Your task to perform on an android device: Search for the best gaming mouse on Best Buy. Image 0: 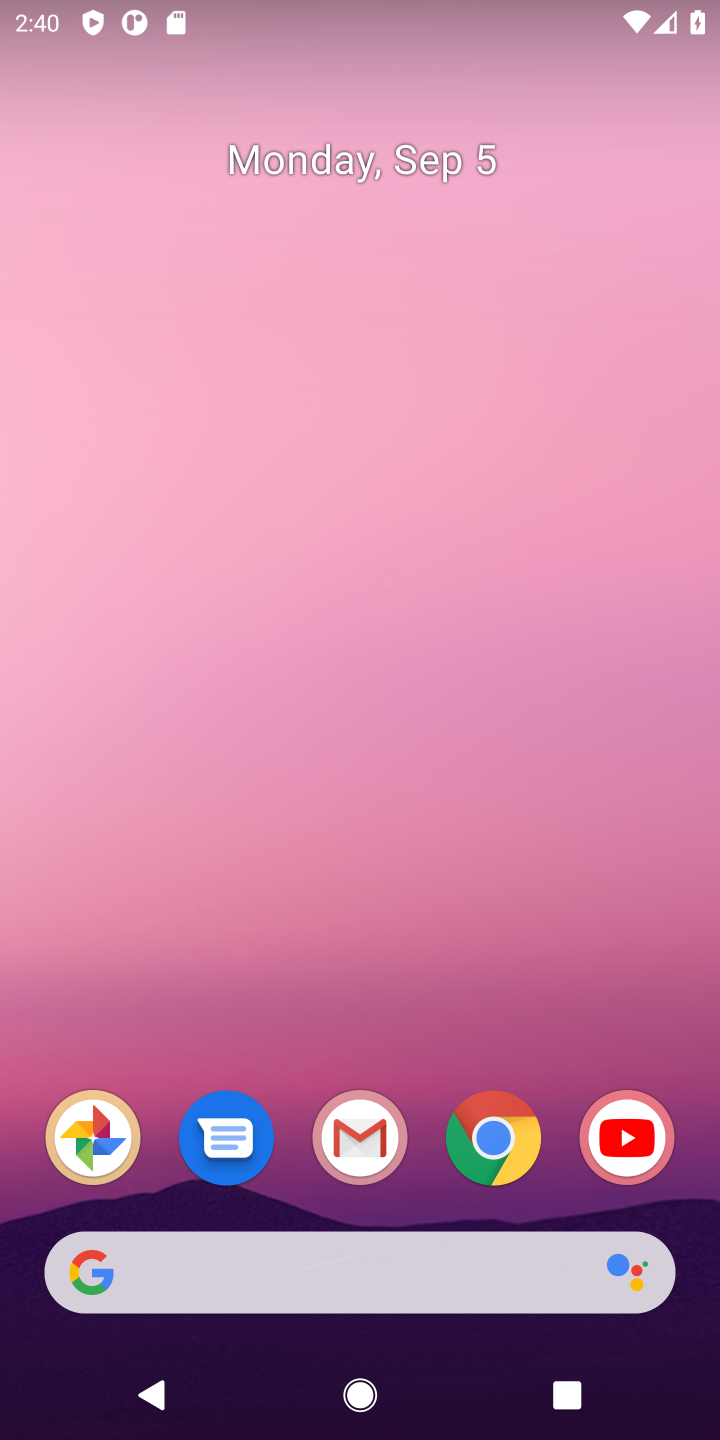
Step 0: click (460, 1138)
Your task to perform on an android device: Search for the best gaming mouse on Best Buy. Image 1: 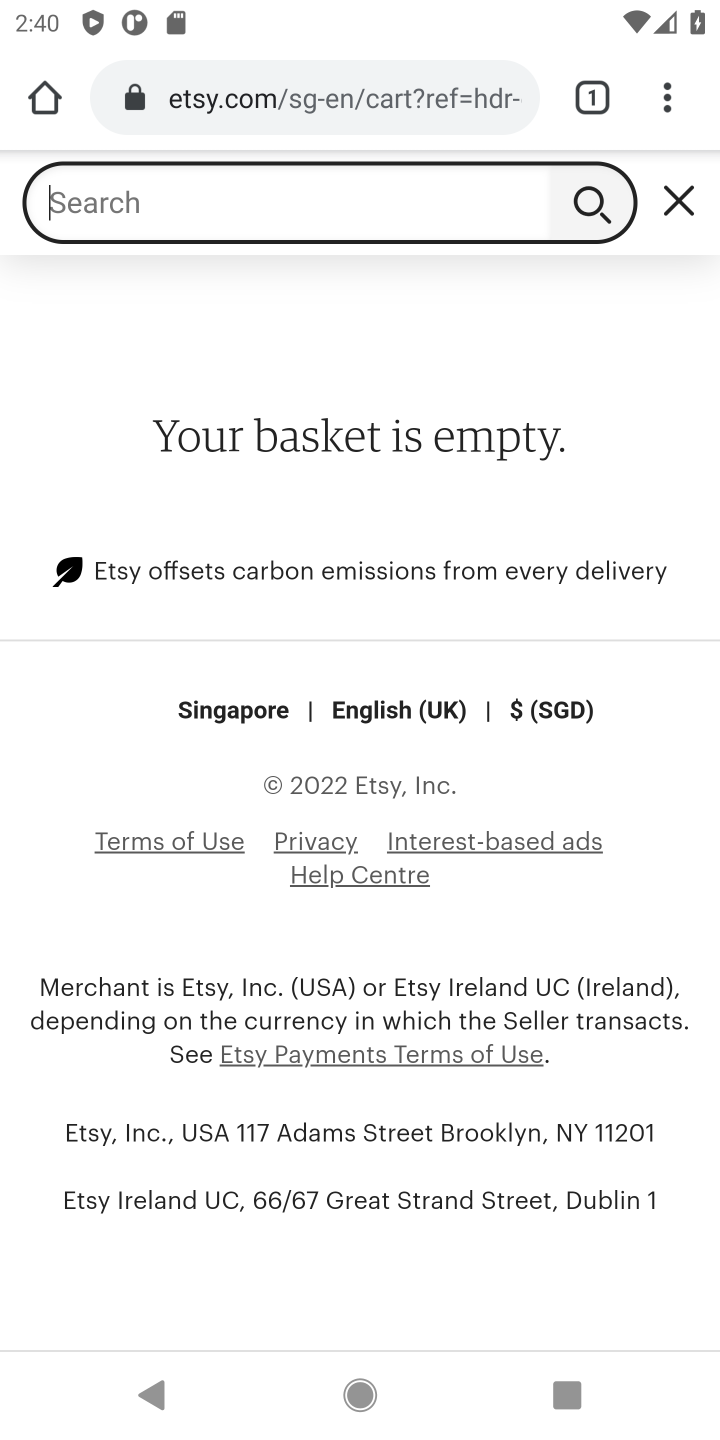
Step 1: click (223, 85)
Your task to perform on an android device: Search for the best gaming mouse on Best Buy. Image 2: 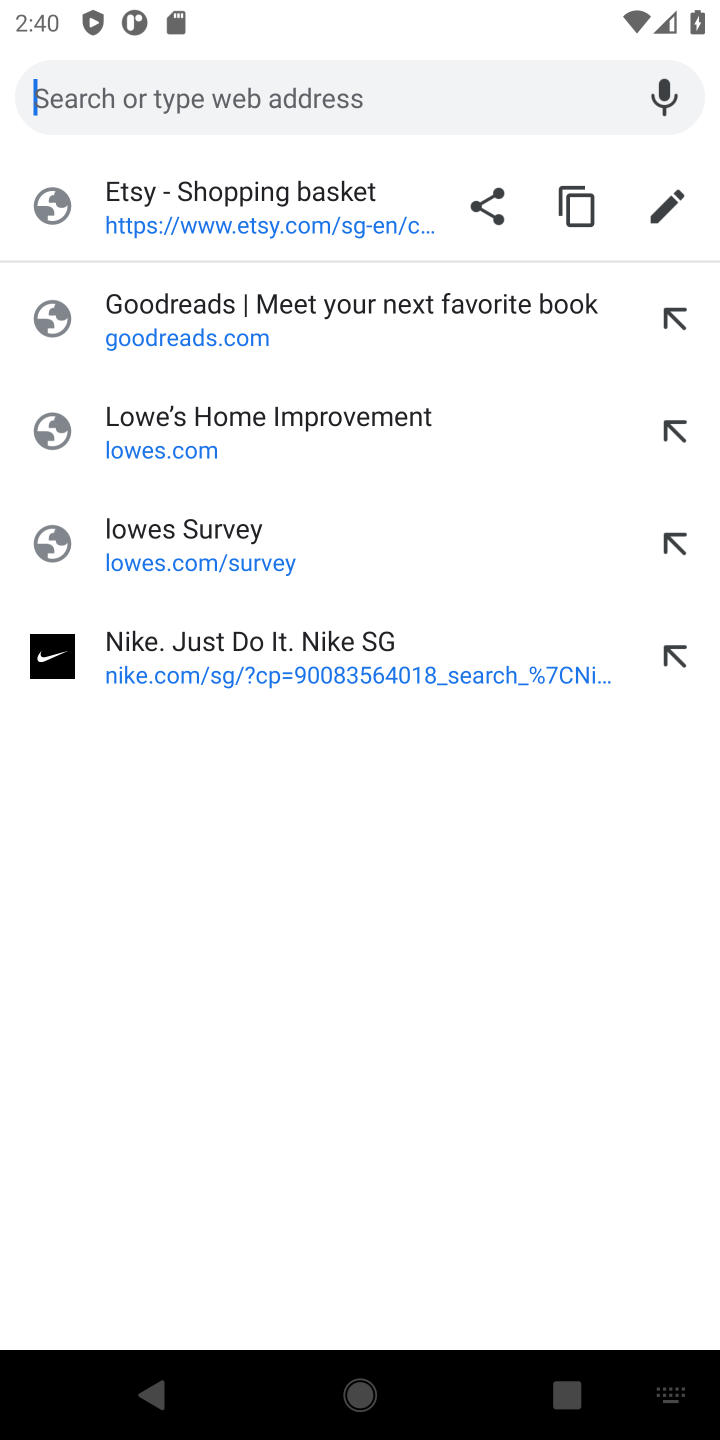
Step 2: click (378, 75)
Your task to perform on an android device: Search for the best gaming mouse on Best Buy. Image 3: 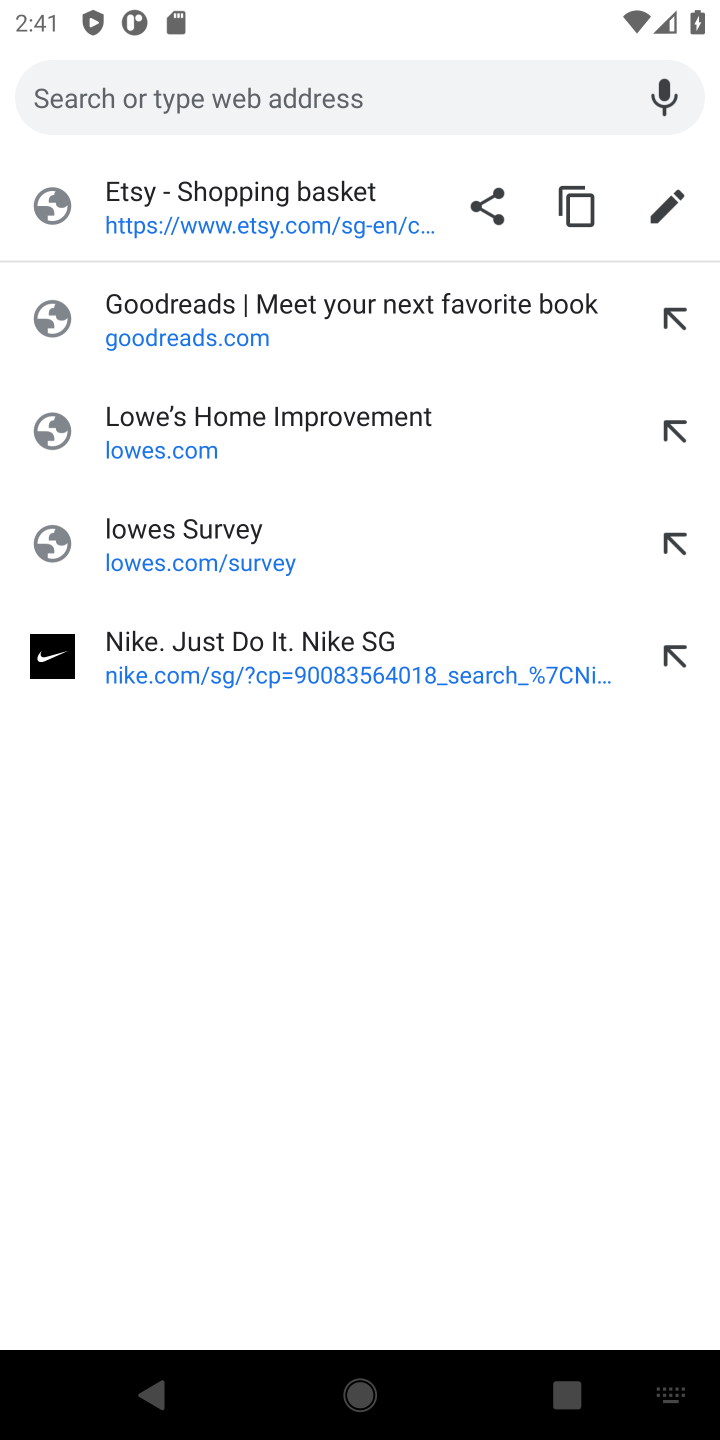
Step 3: type "best buy"
Your task to perform on an android device: Search for the best gaming mouse on Best Buy. Image 4: 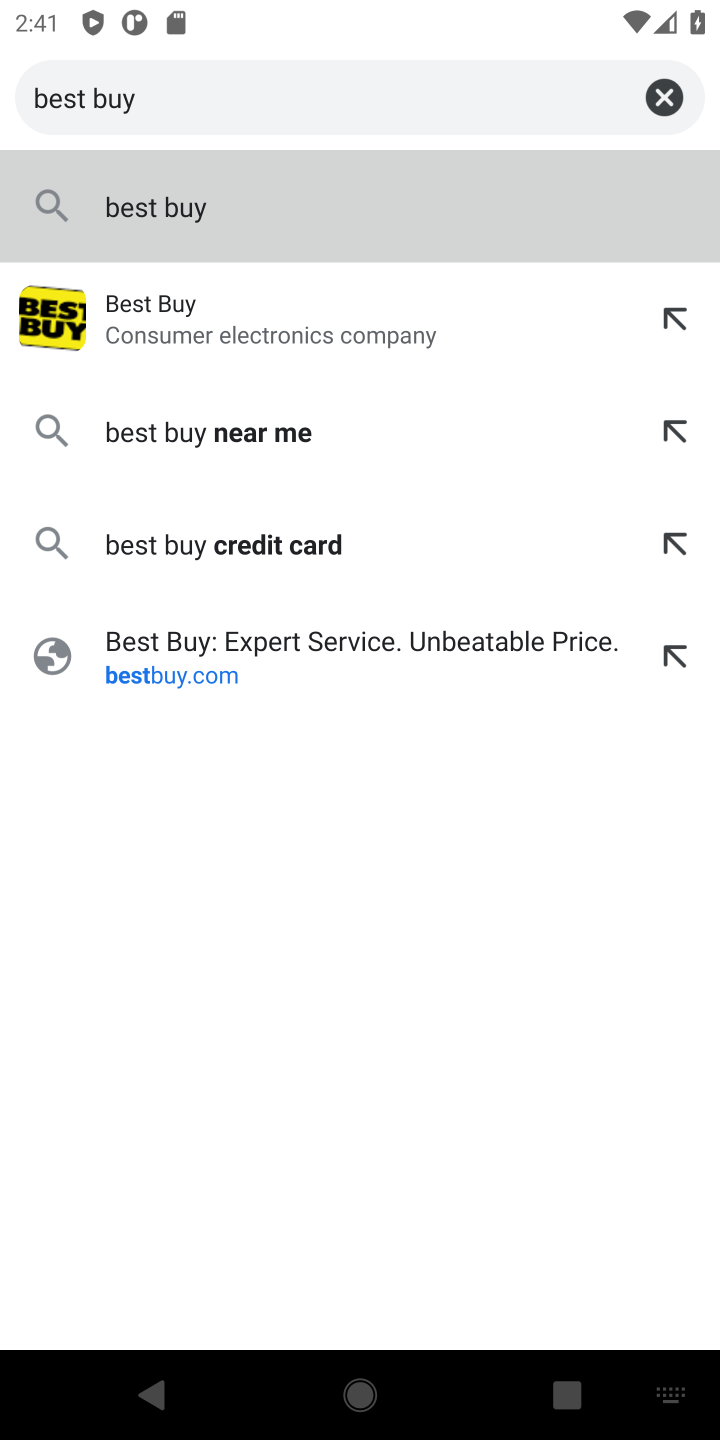
Step 4: click (143, 306)
Your task to perform on an android device: Search for the best gaming mouse on Best Buy. Image 5: 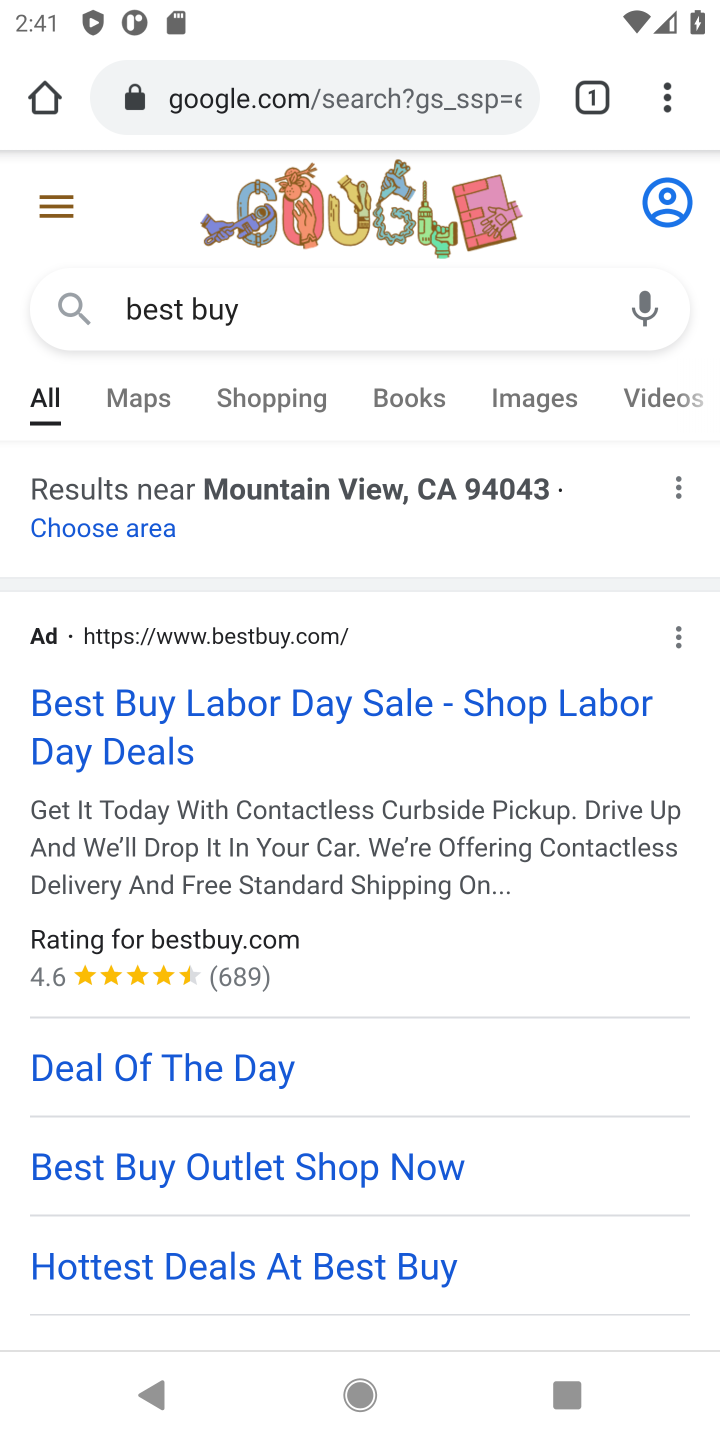
Step 5: click (73, 703)
Your task to perform on an android device: Search for the best gaming mouse on Best Buy. Image 6: 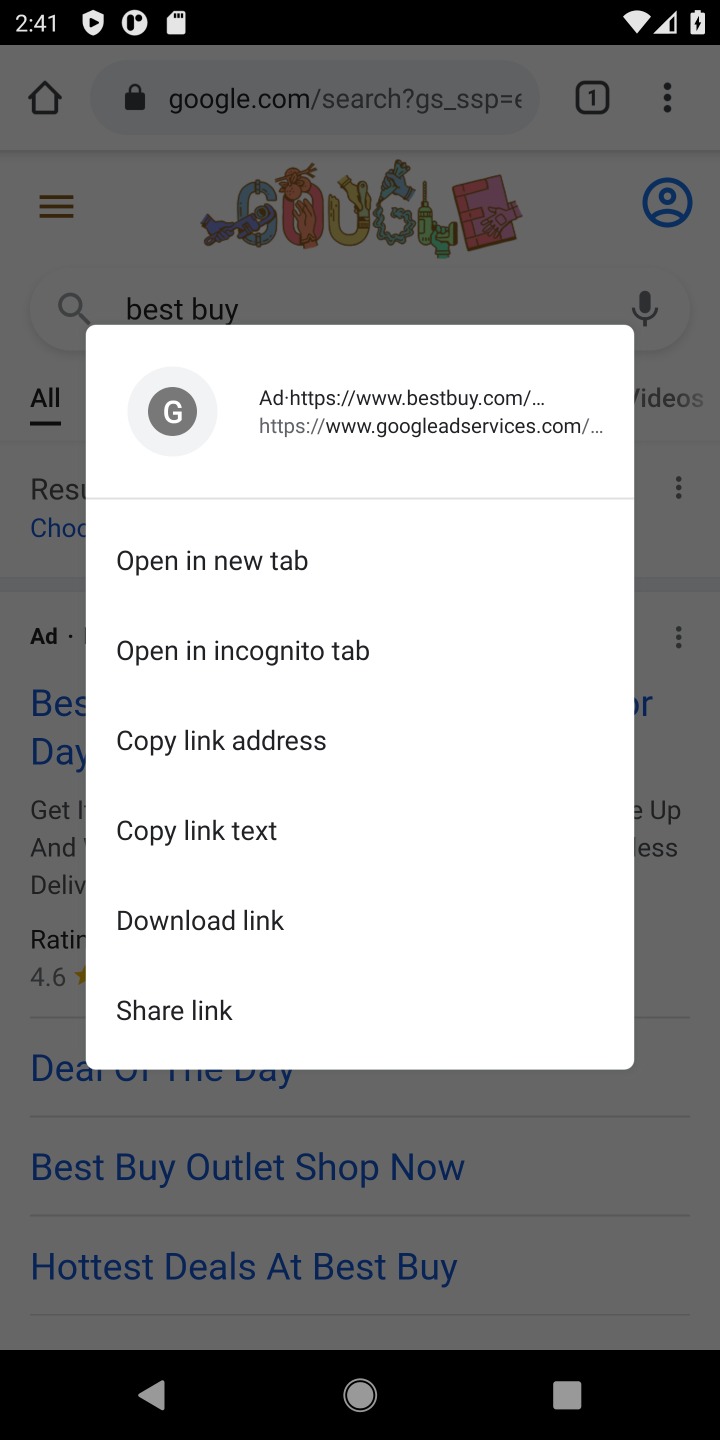
Step 6: click (690, 1125)
Your task to perform on an android device: Search for the best gaming mouse on Best Buy. Image 7: 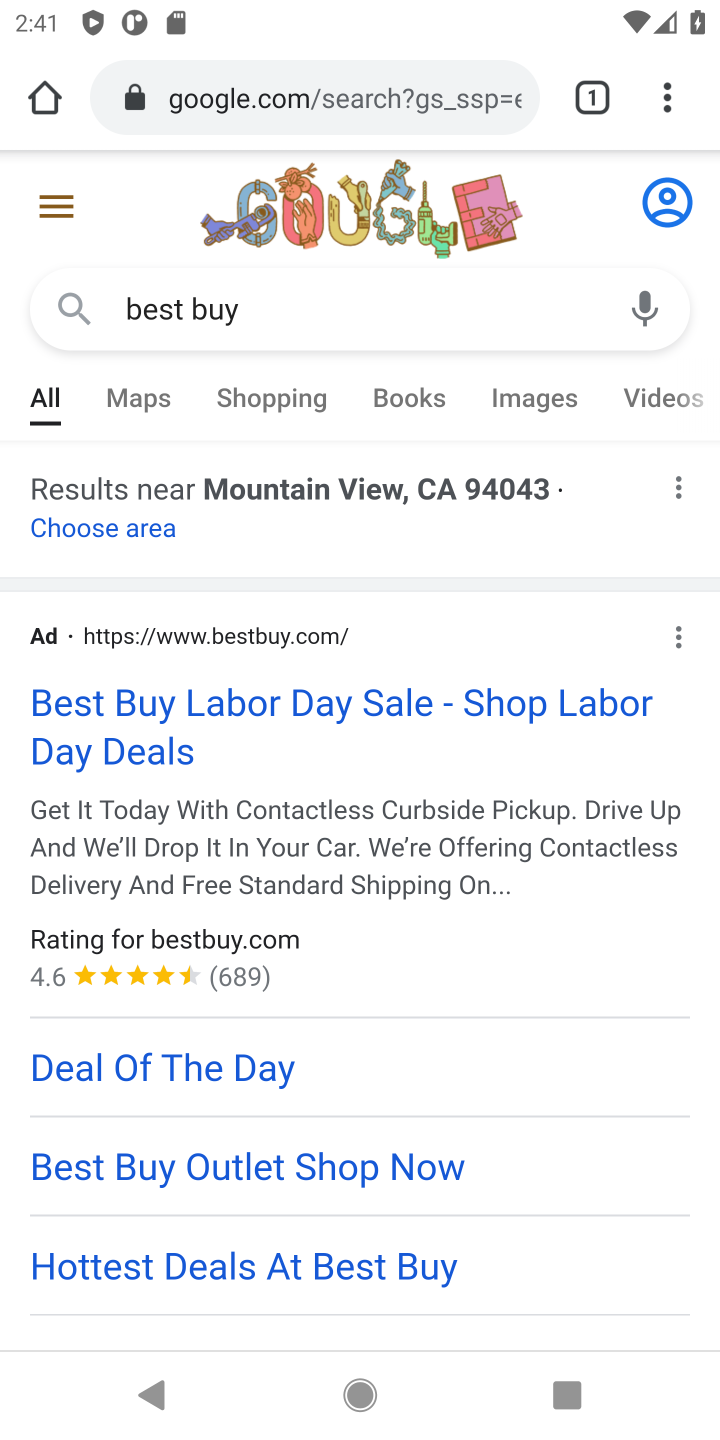
Step 7: drag from (620, 1063) to (566, 450)
Your task to perform on an android device: Search for the best gaming mouse on Best Buy. Image 8: 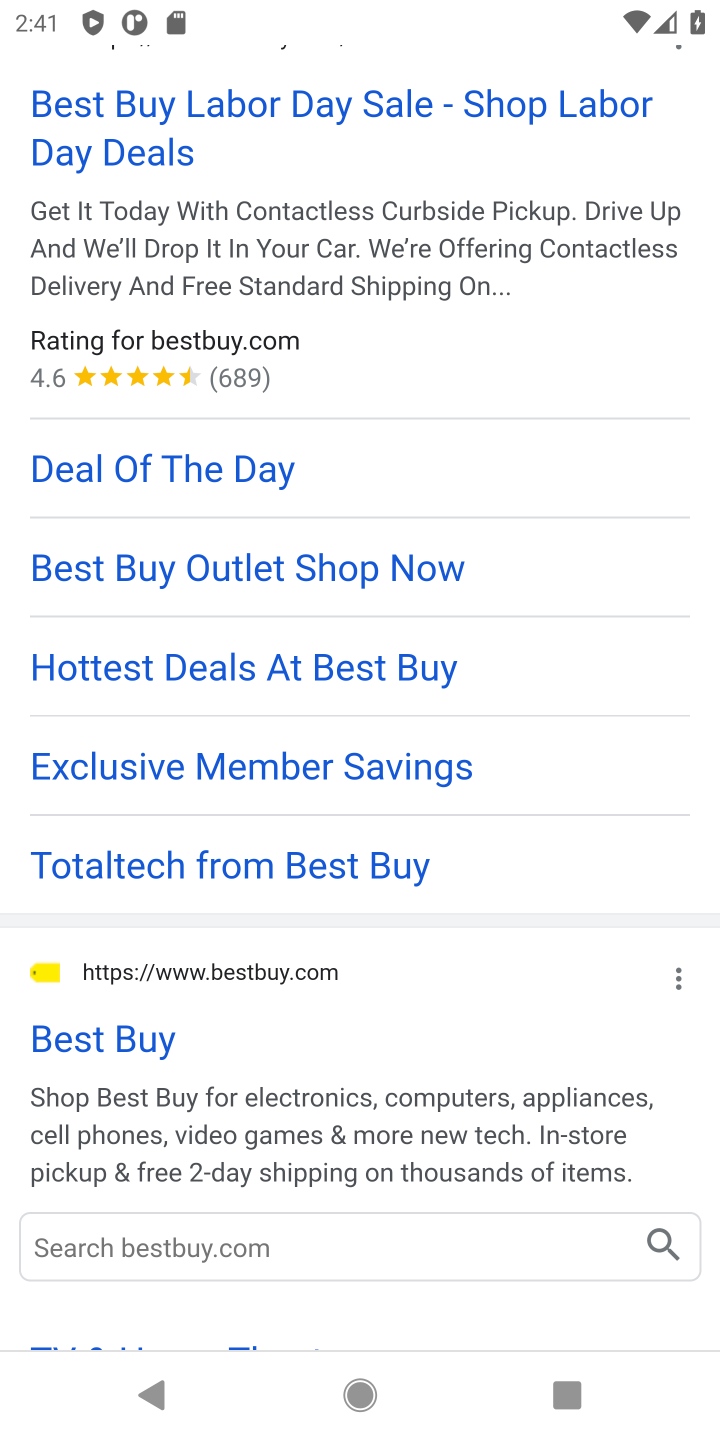
Step 8: click (75, 1045)
Your task to perform on an android device: Search for the best gaming mouse on Best Buy. Image 9: 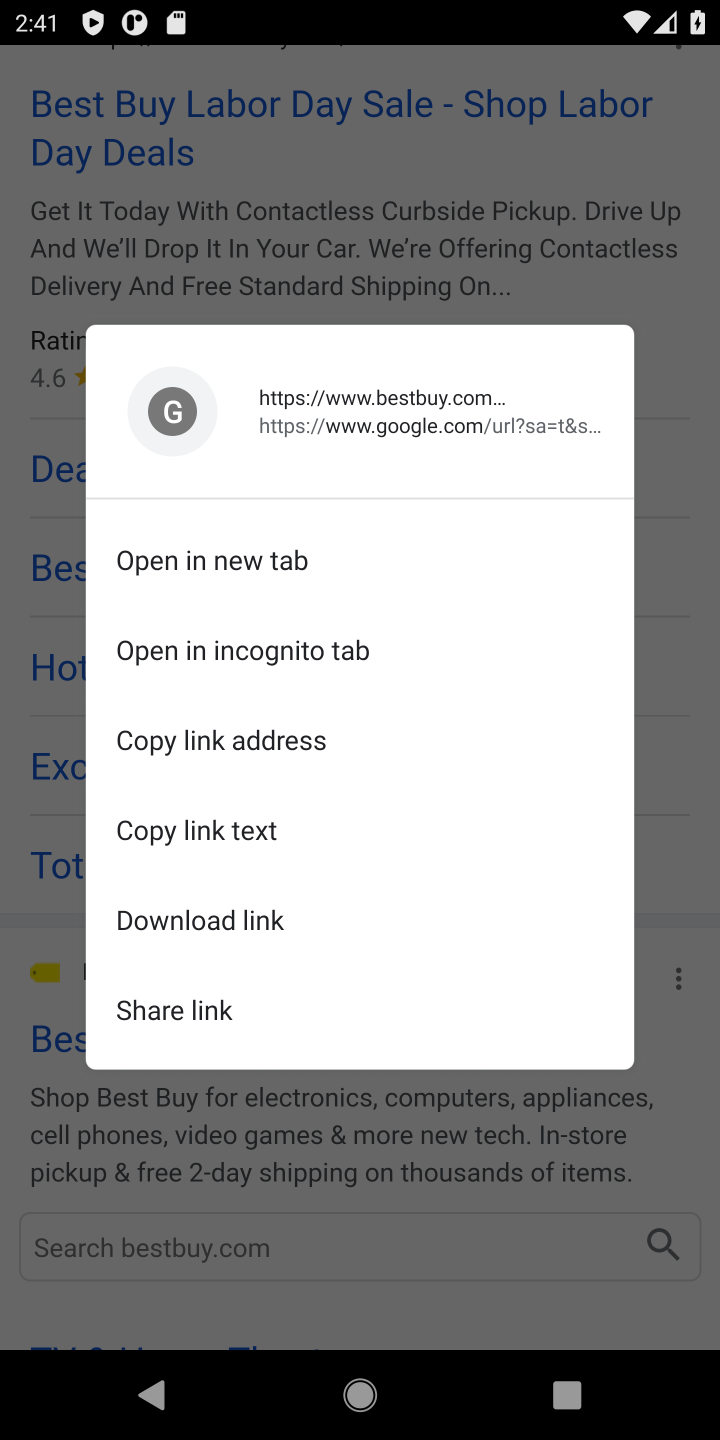
Step 9: click (665, 756)
Your task to perform on an android device: Search for the best gaming mouse on Best Buy. Image 10: 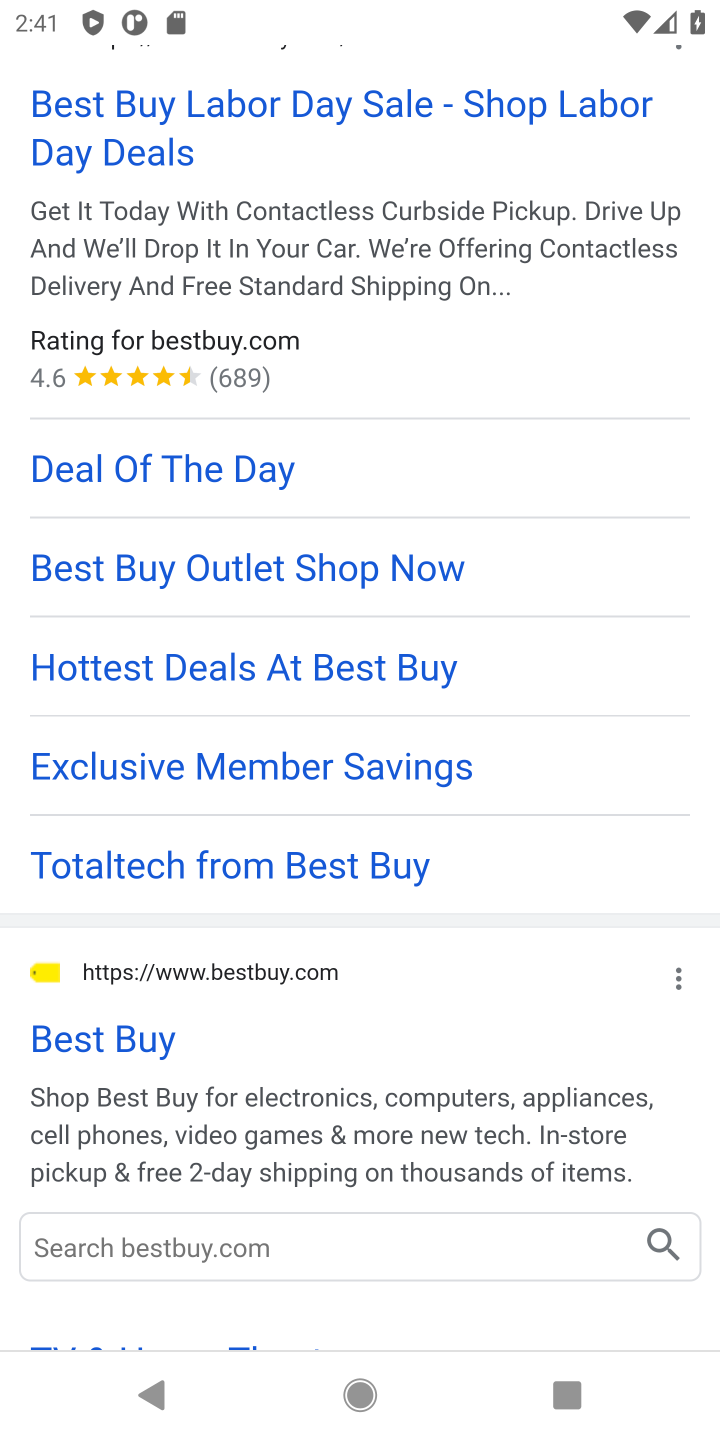
Step 10: click (50, 1037)
Your task to perform on an android device: Search for the best gaming mouse on Best Buy. Image 11: 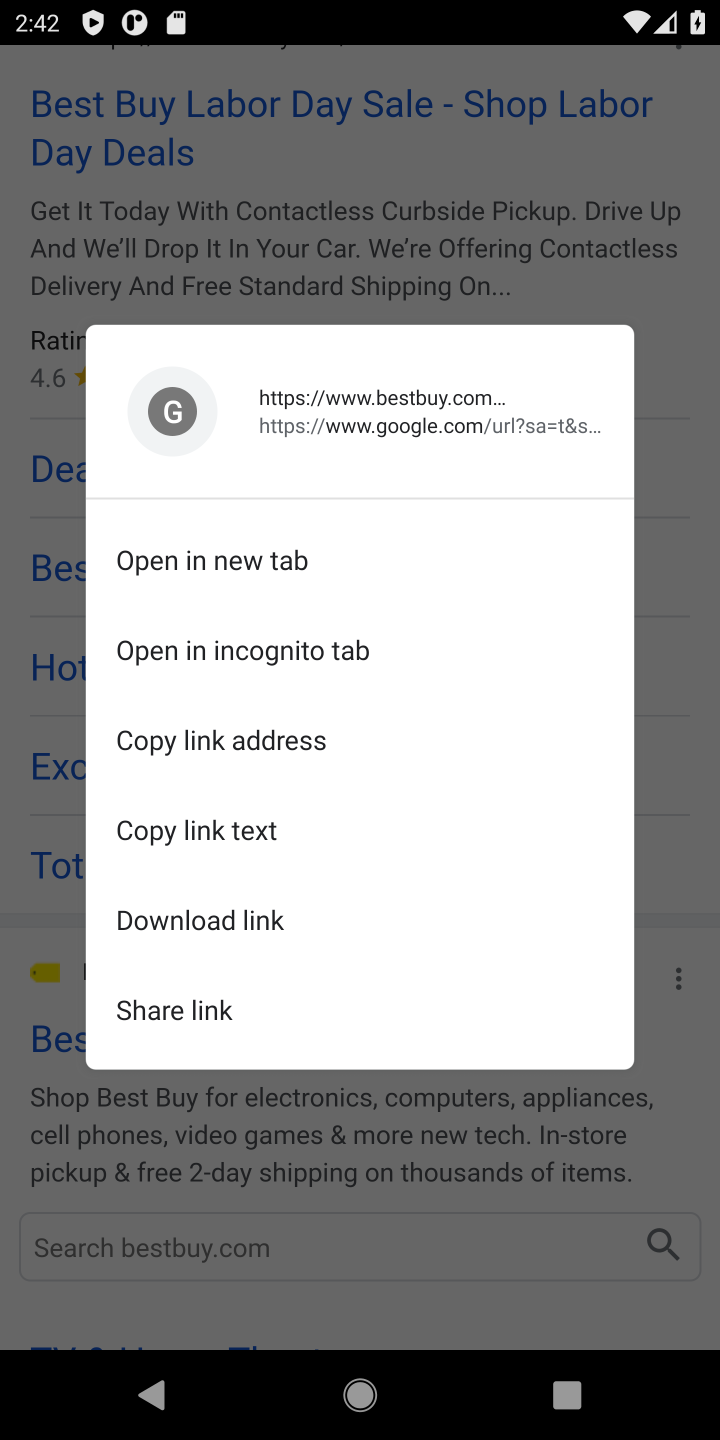
Step 11: drag from (706, 756) to (706, 336)
Your task to perform on an android device: Search for the best gaming mouse on Best Buy. Image 12: 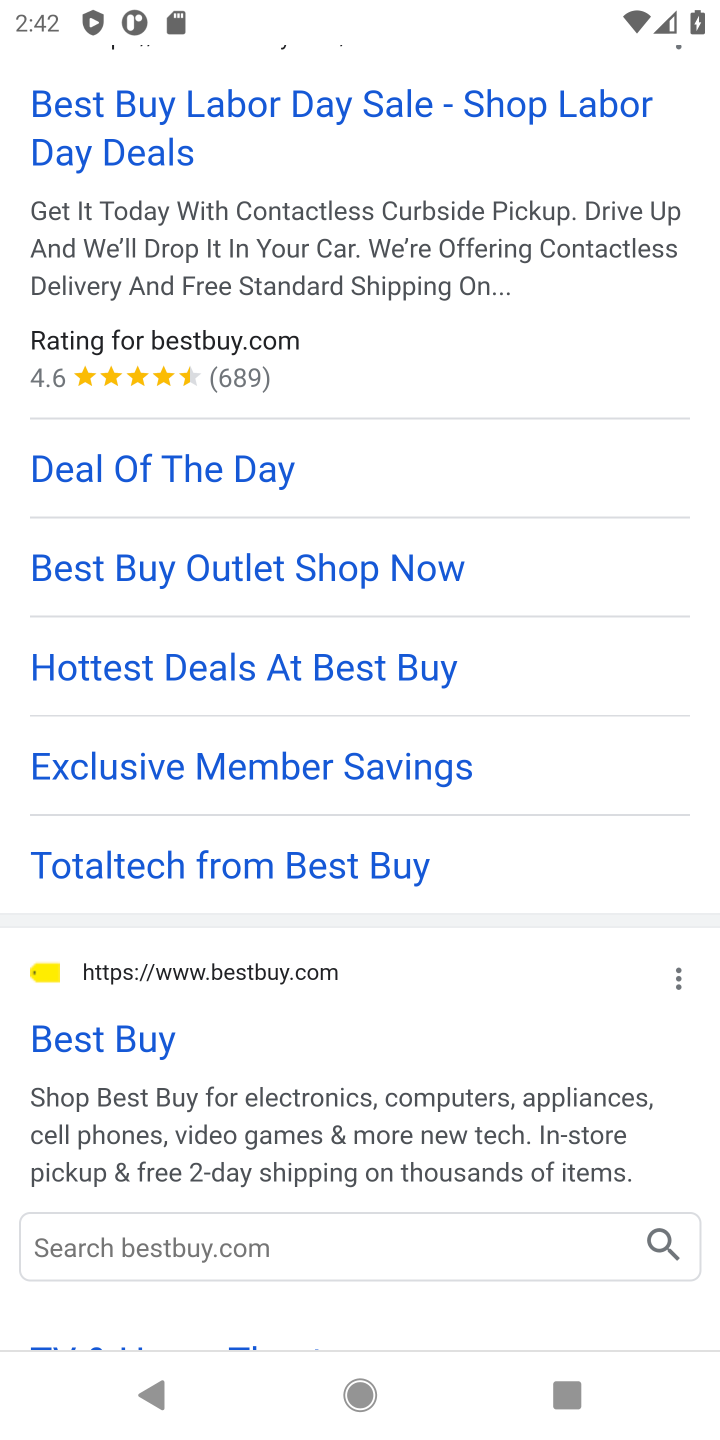
Step 12: click (131, 1037)
Your task to perform on an android device: Search for the best gaming mouse on Best Buy. Image 13: 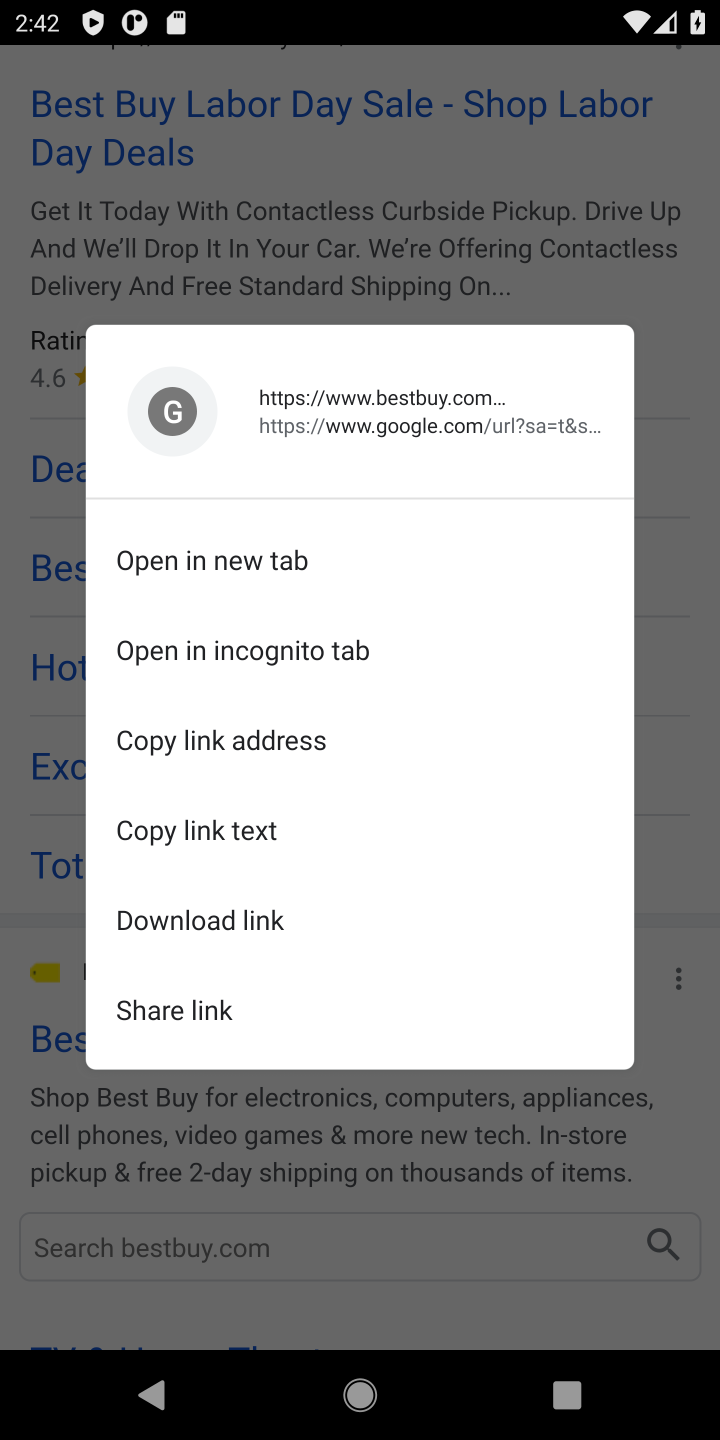
Step 13: drag from (673, 732) to (78, 1049)
Your task to perform on an android device: Search for the best gaming mouse on Best Buy. Image 14: 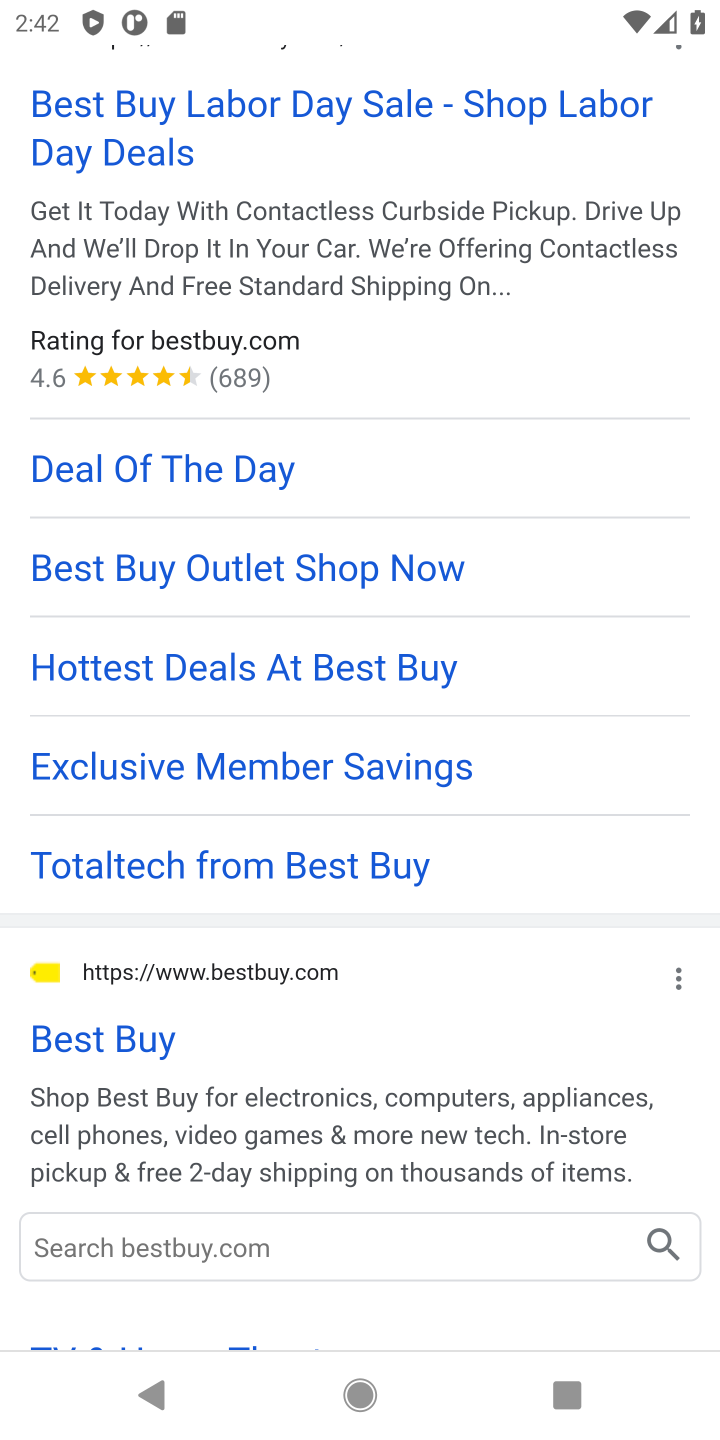
Step 14: click (72, 1045)
Your task to perform on an android device: Search for the best gaming mouse on Best Buy. Image 15: 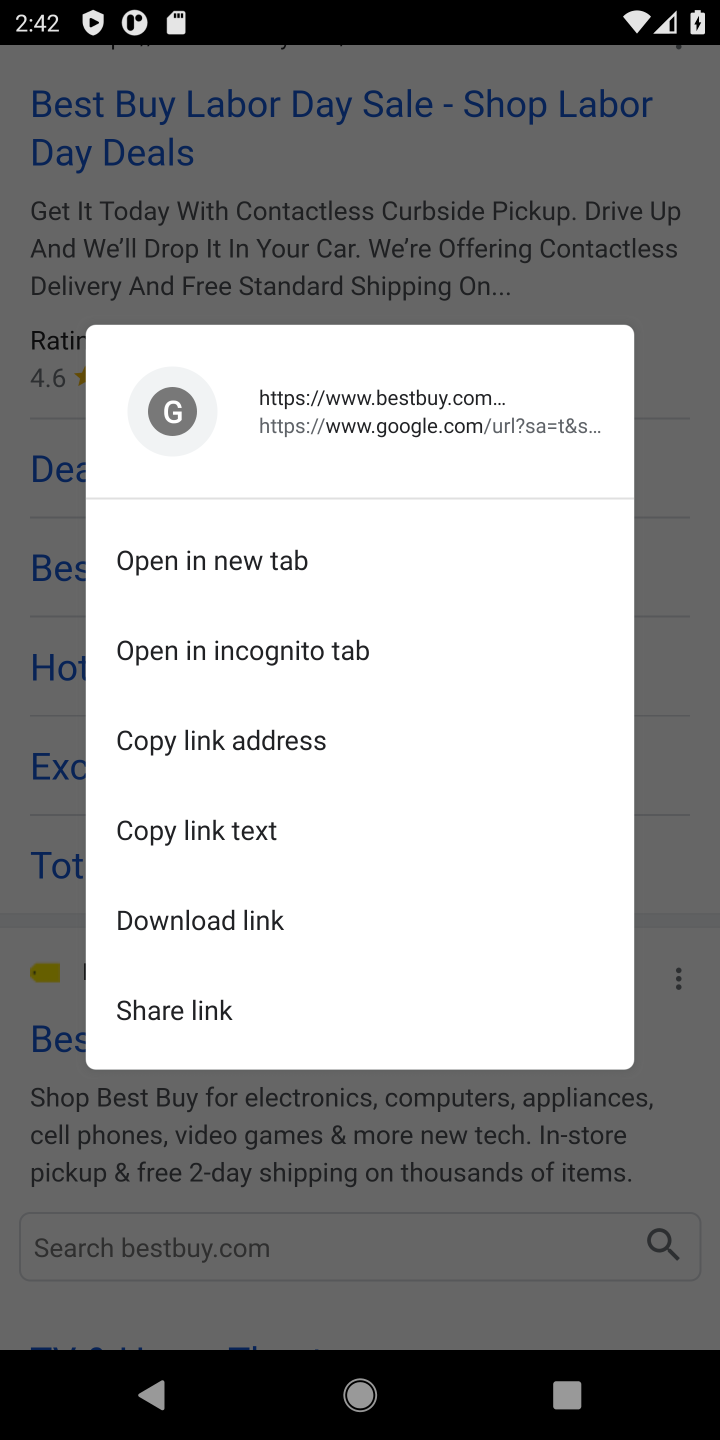
Step 15: click (699, 688)
Your task to perform on an android device: Search for the best gaming mouse on Best Buy. Image 16: 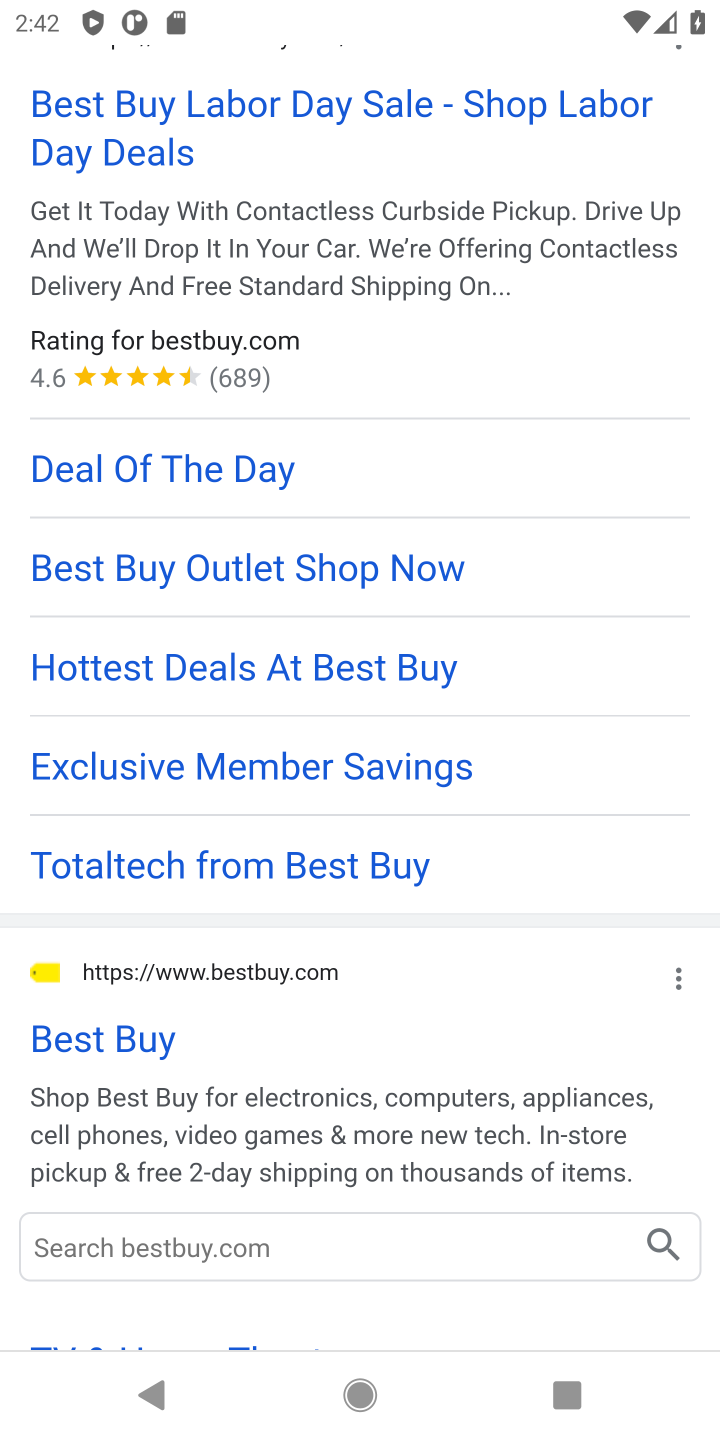
Step 16: drag from (517, 1008) to (79, 1047)
Your task to perform on an android device: Search for the best gaming mouse on Best Buy. Image 17: 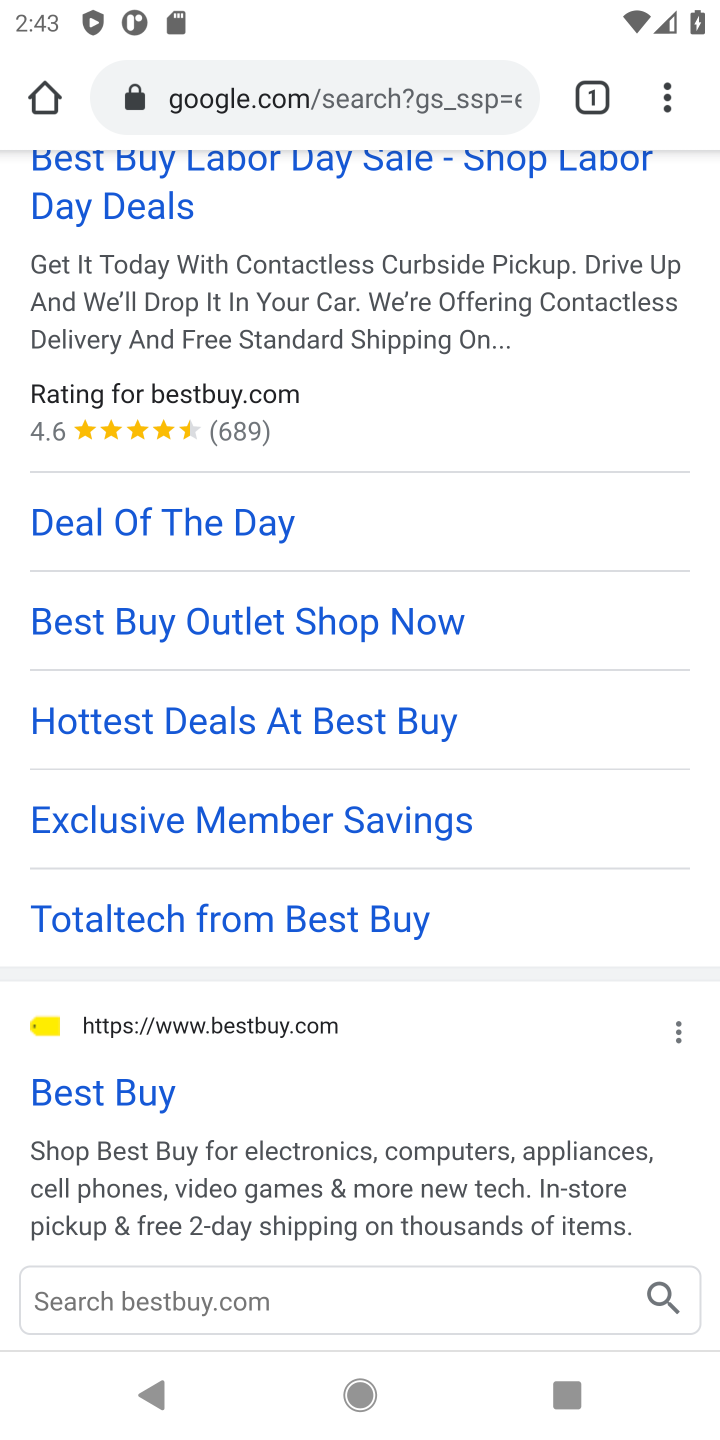
Step 17: click (113, 1092)
Your task to perform on an android device: Search for the best gaming mouse on Best Buy. Image 18: 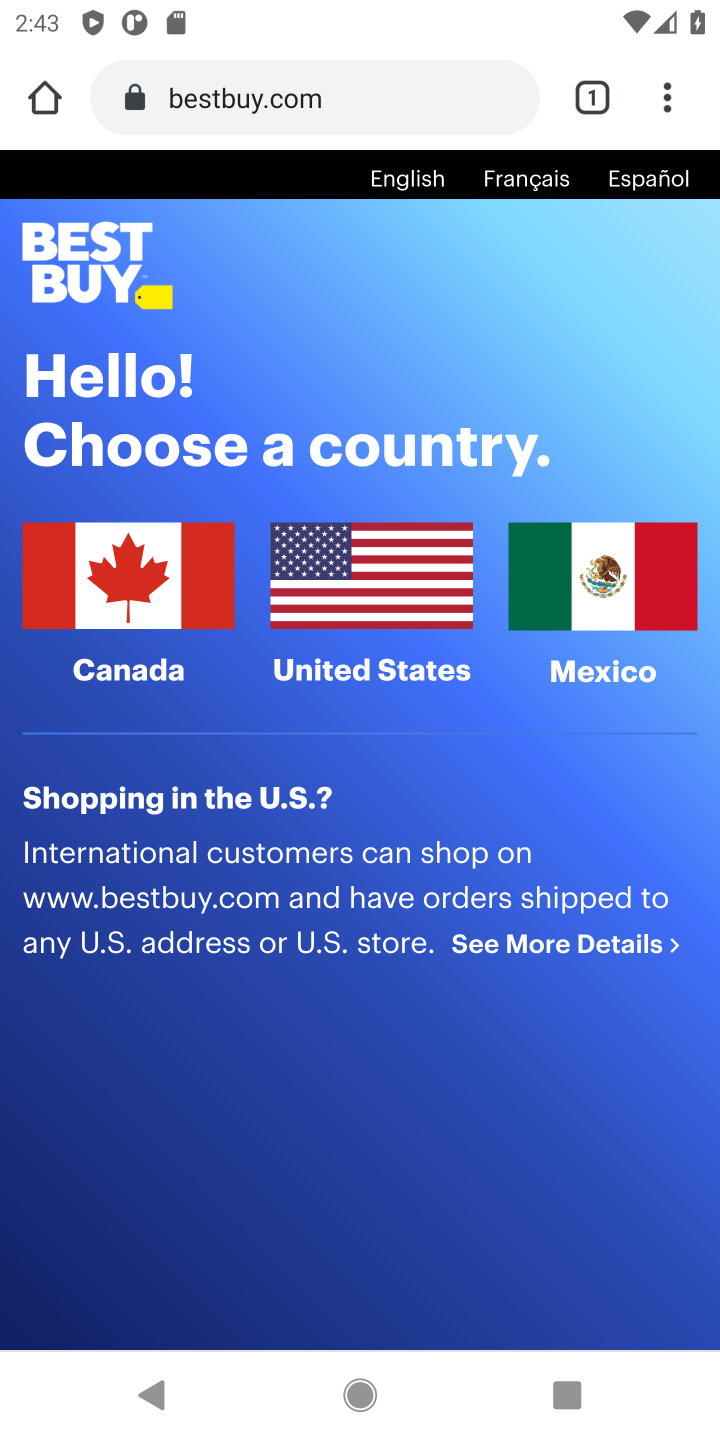
Step 18: click (382, 587)
Your task to perform on an android device: Search for the best gaming mouse on Best Buy. Image 19: 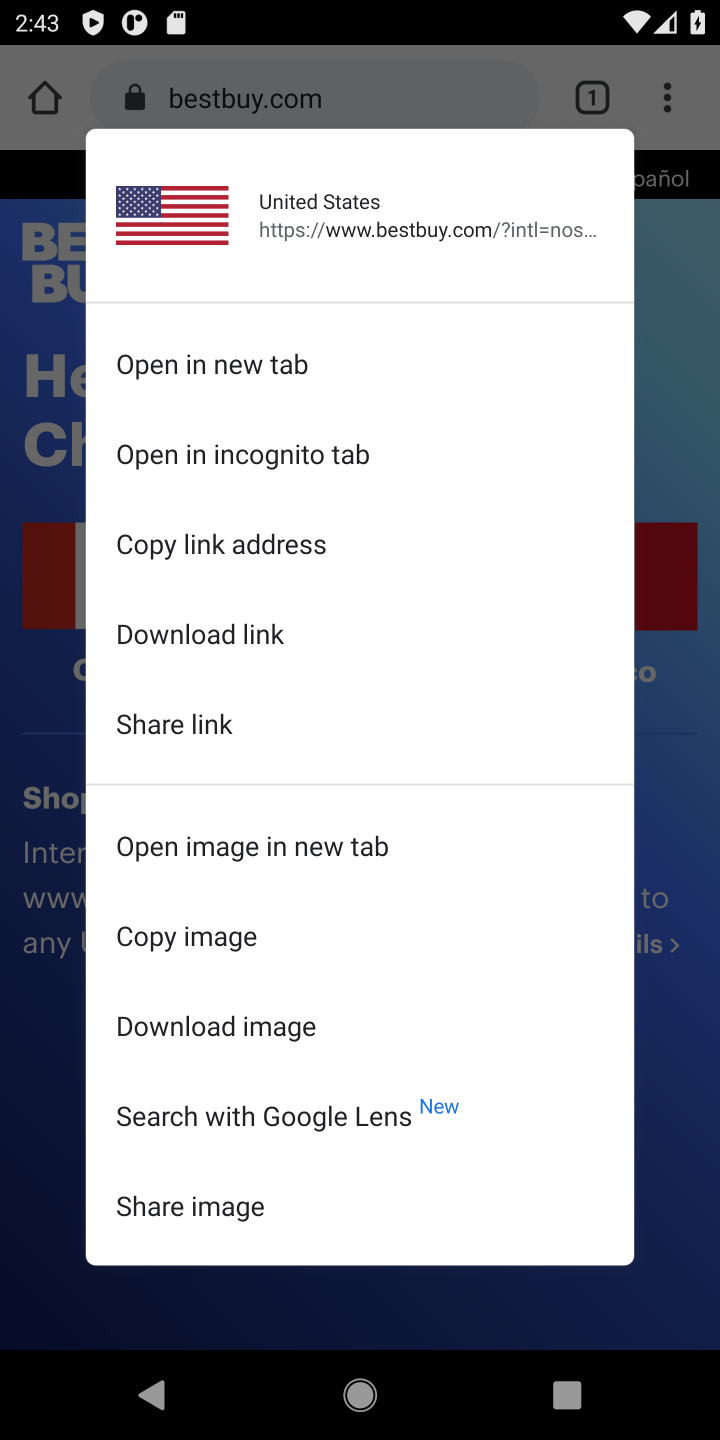
Step 19: click (245, 370)
Your task to perform on an android device: Search for the best gaming mouse on Best Buy. Image 20: 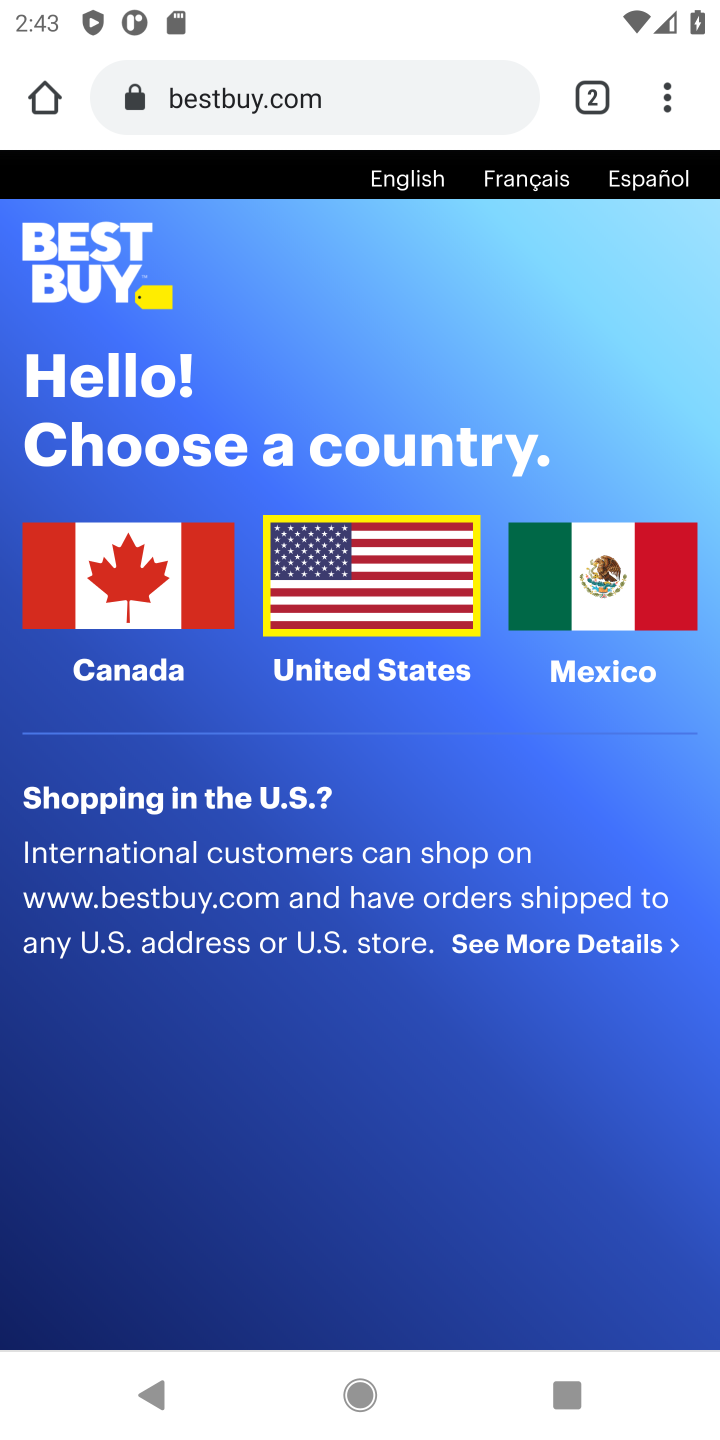
Step 20: click (358, 570)
Your task to perform on an android device: Search for the best gaming mouse on Best Buy. Image 21: 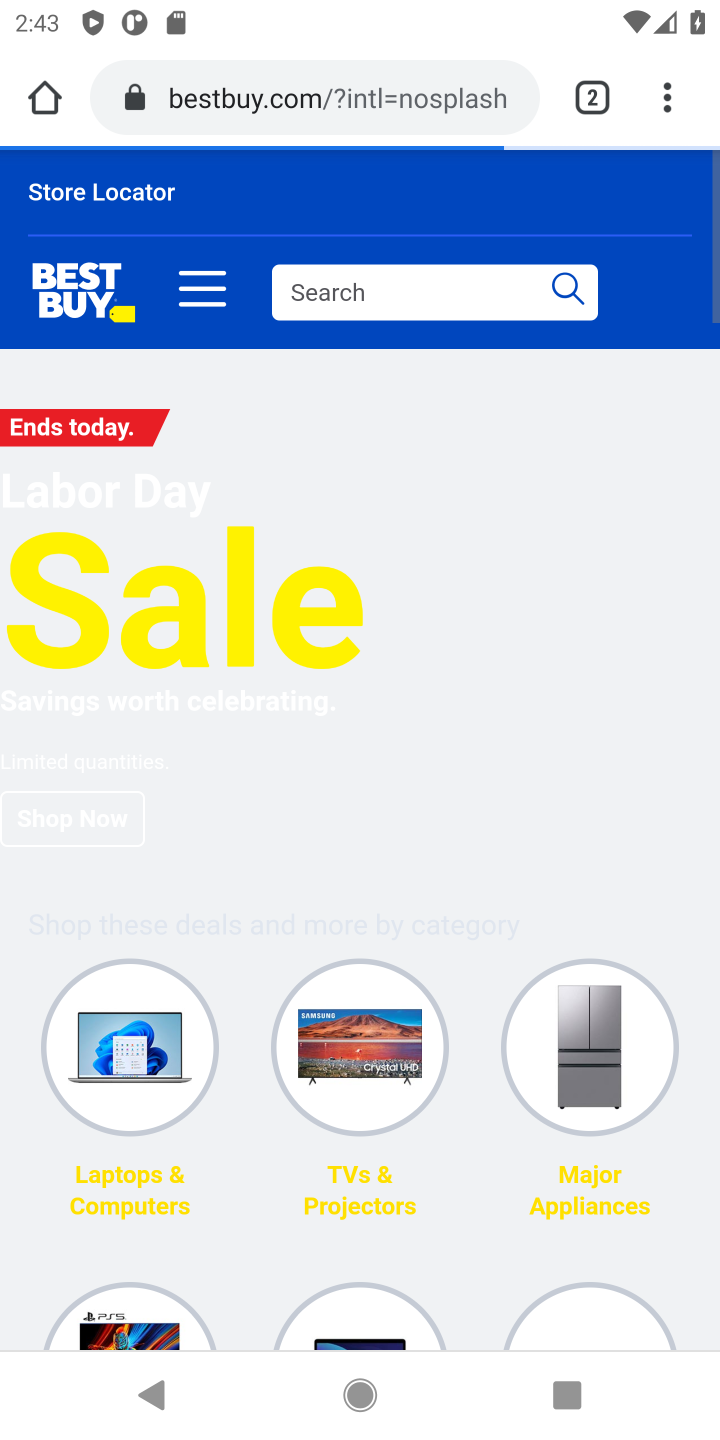
Step 21: click (371, 308)
Your task to perform on an android device: Search for the best gaming mouse on Best Buy. Image 22: 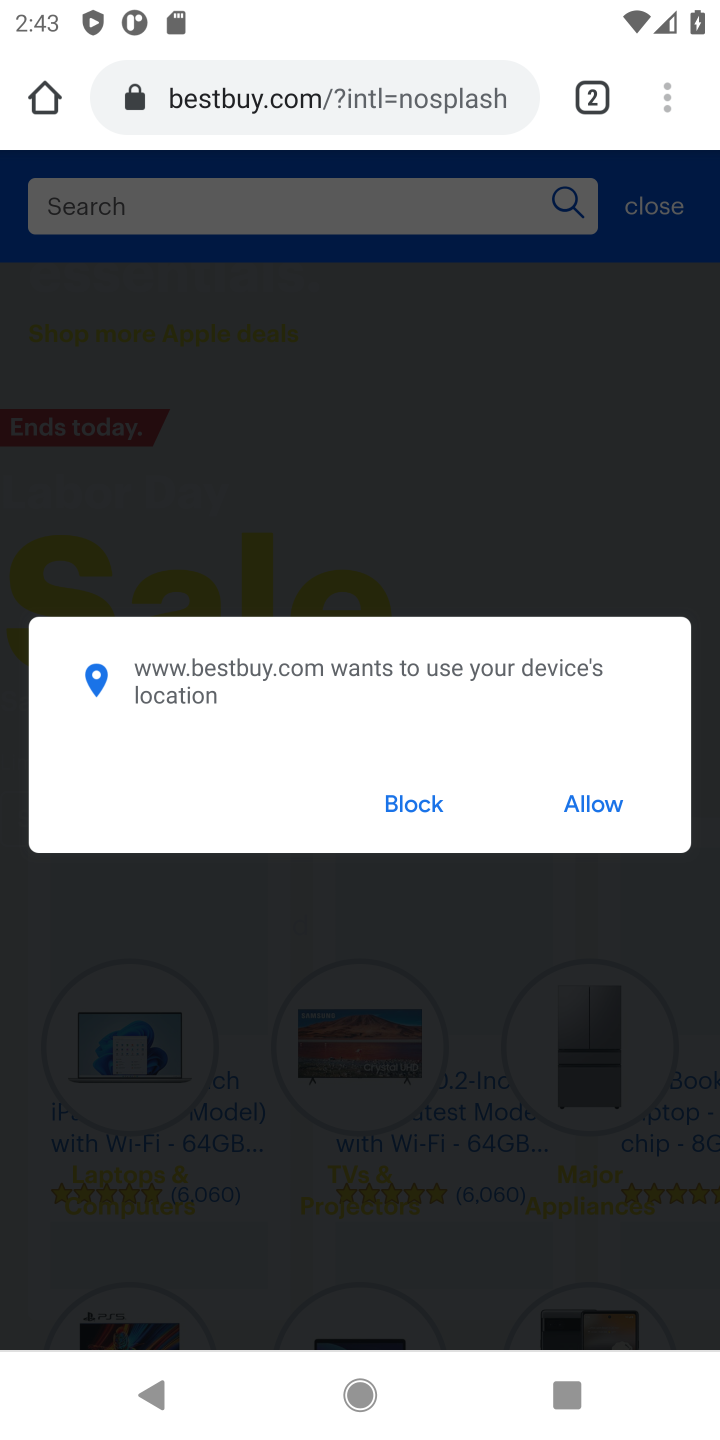
Step 22: click (604, 800)
Your task to perform on an android device: Search for the best gaming mouse on Best Buy. Image 23: 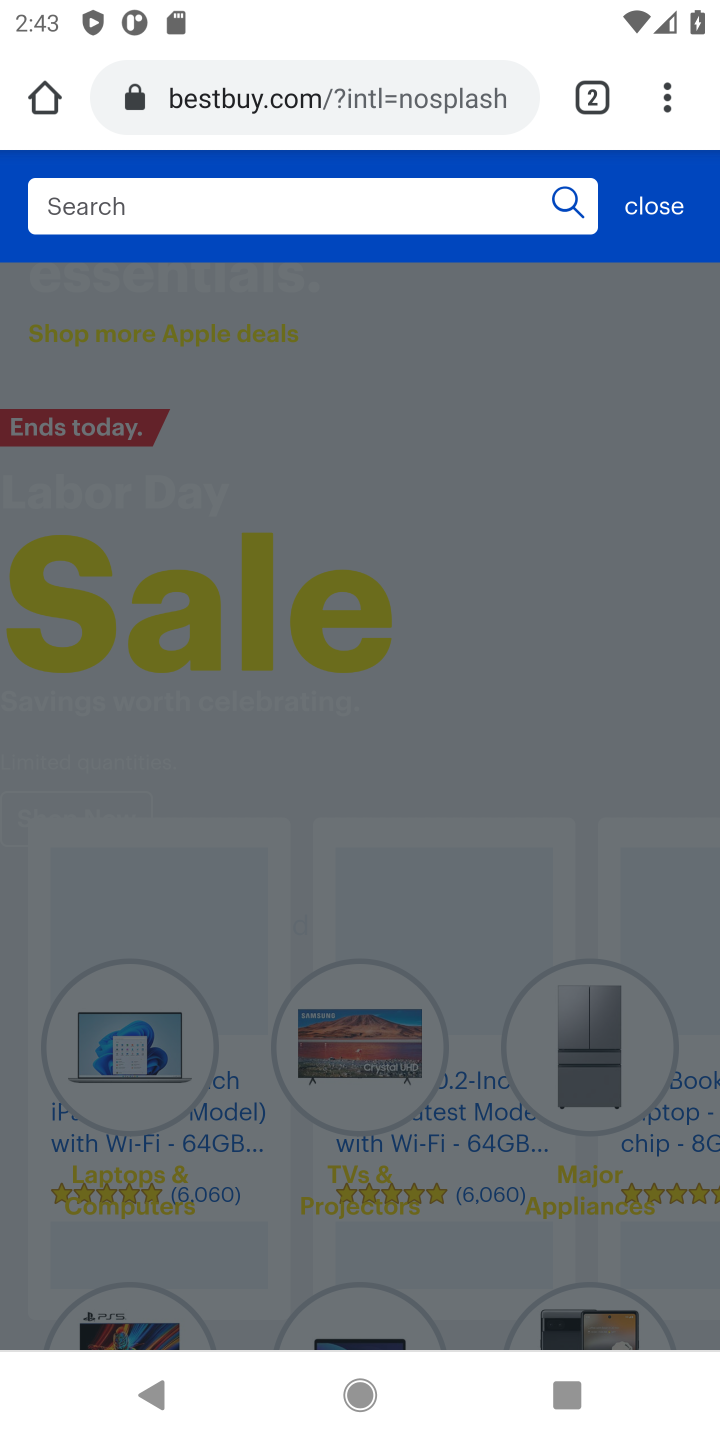
Step 23: click (301, 216)
Your task to perform on an android device: Search for the best gaming mouse on Best Buy. Image 24: 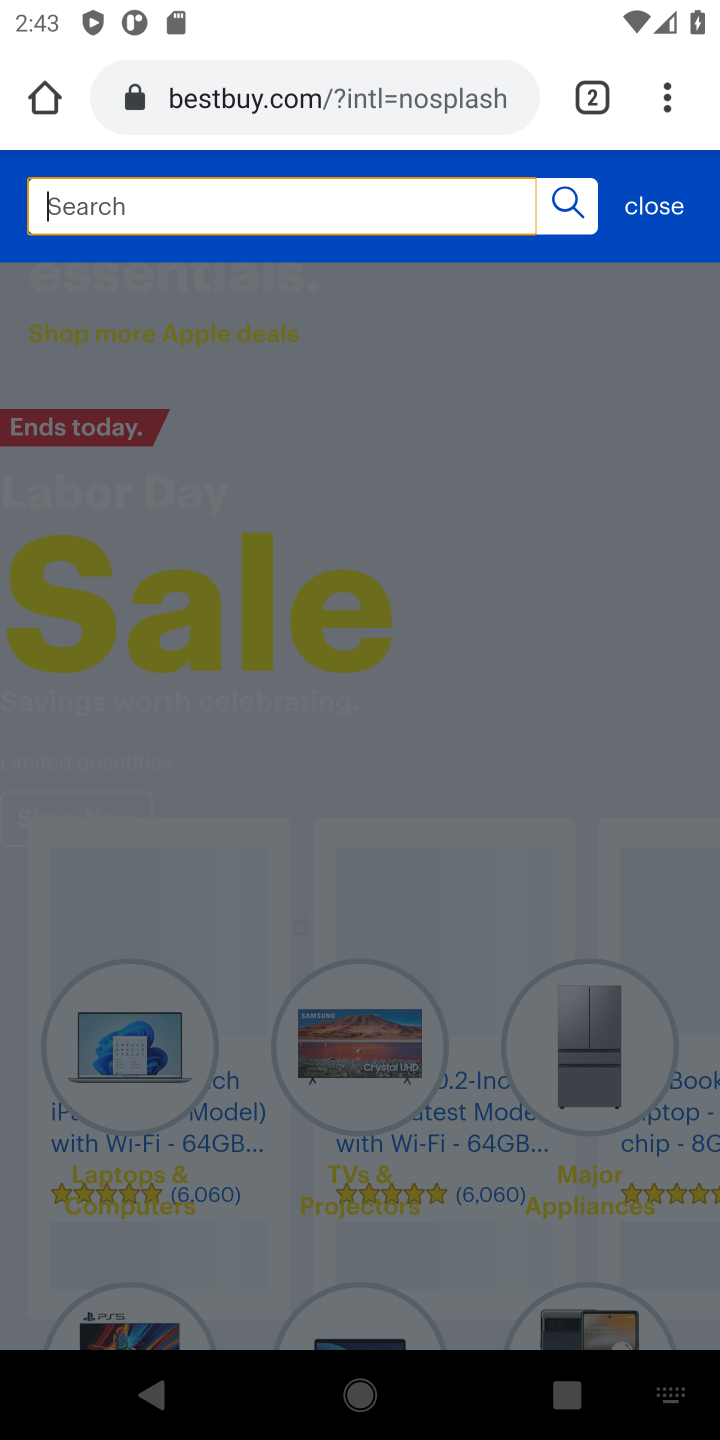
Step 24: type "gaming mouse"
Your task to perform on an android device: Search for the best gaming mouse on Best Buy. Image 25: 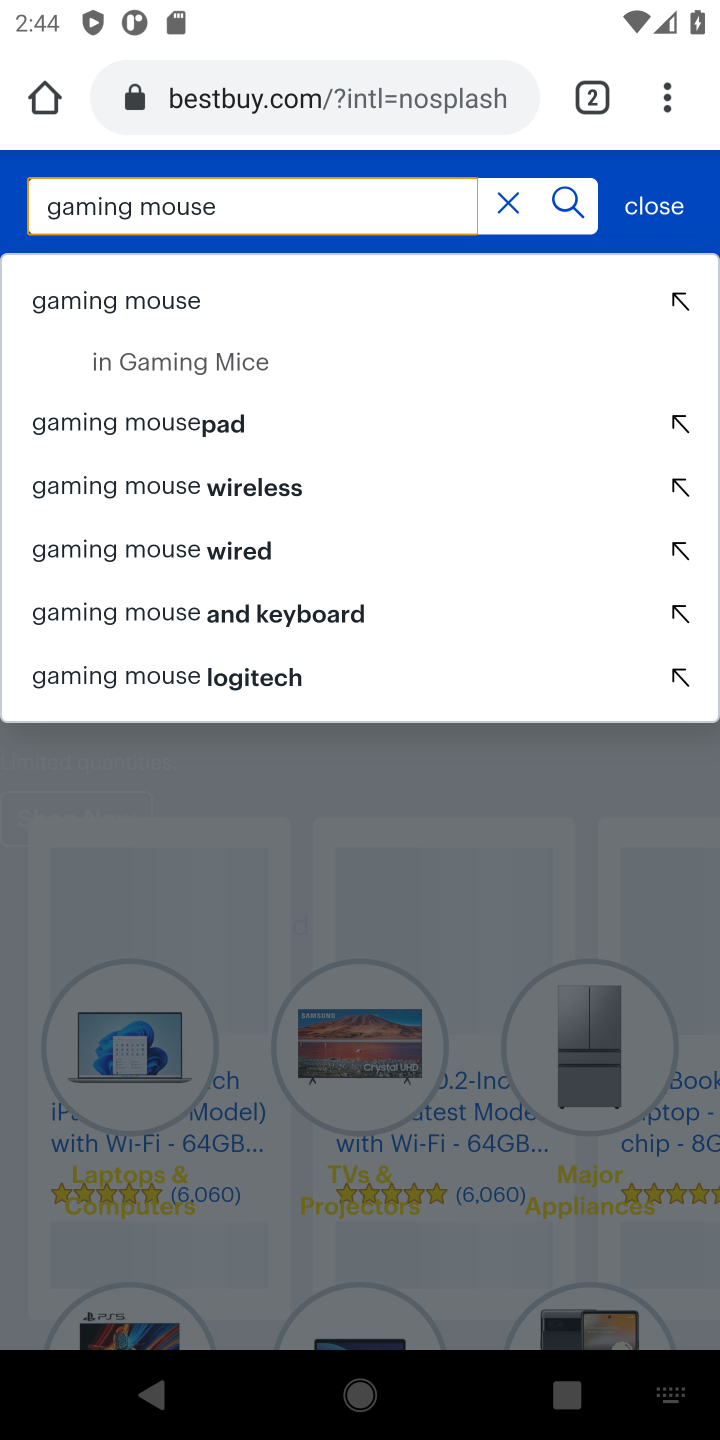
Step 25: click (140, 290)
Your task to perform on an android device: Search for the best gaming mouse on Best Buy. Image 26: 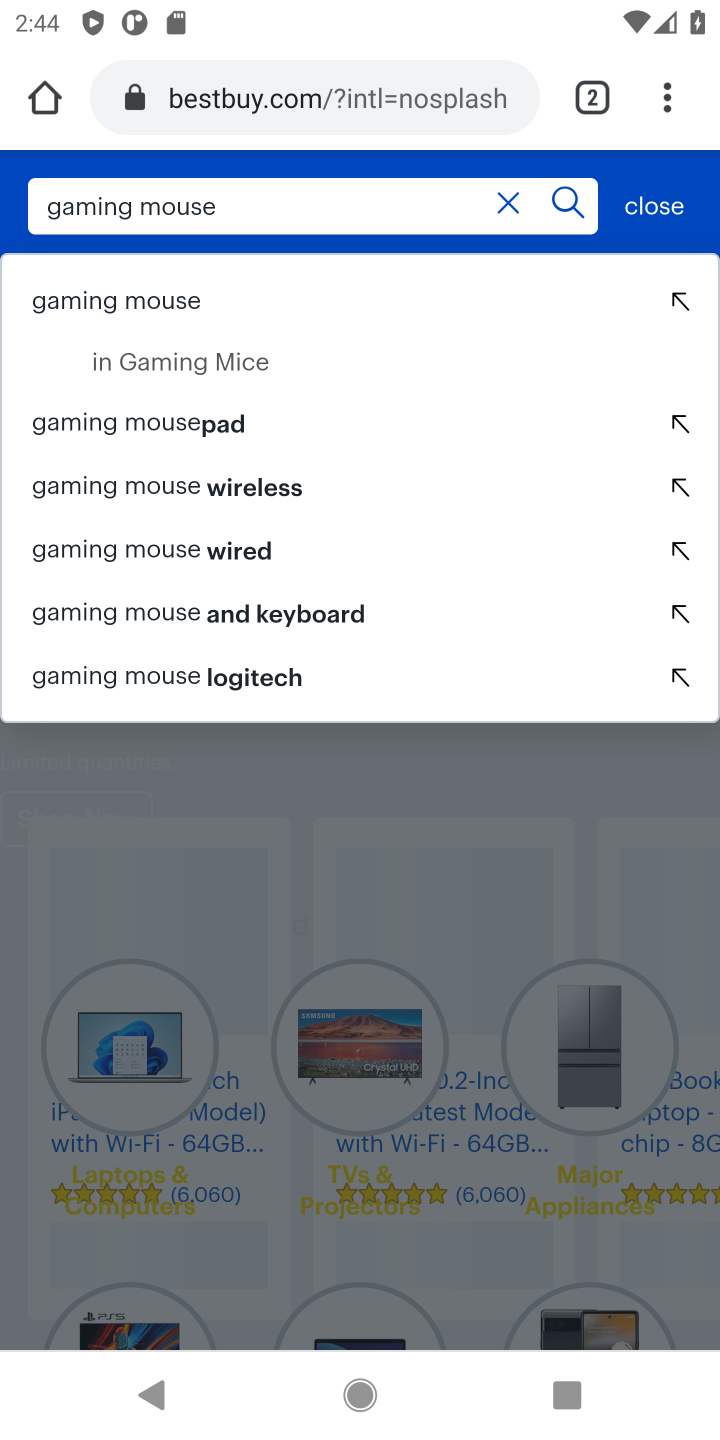
Step 26: click (149, 293)
Your task to perform on an android device: Search for the best gaming mouse on Best Buy. Image 27: 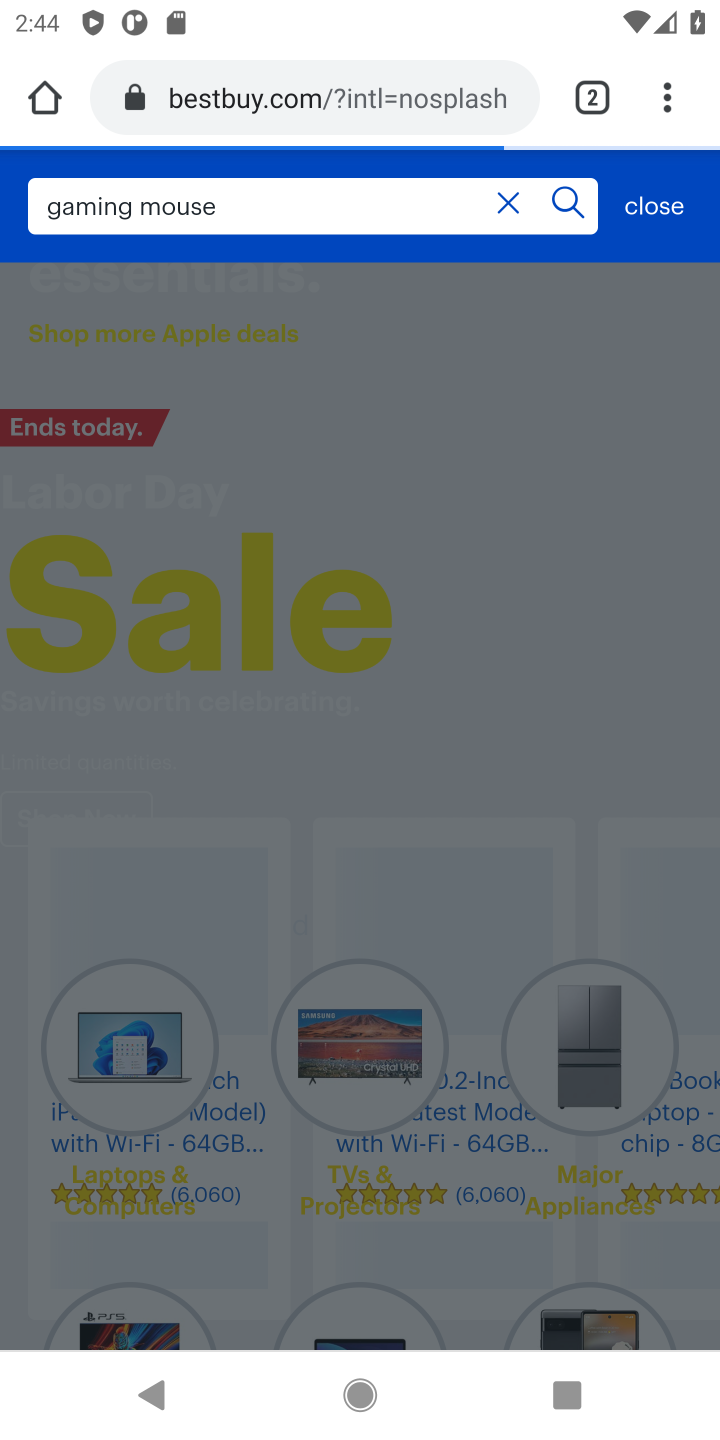
Step 27: click (559, 208)
Your task to perform on an android device: Search for the best gaming mouse on Best Buy. Image 28: 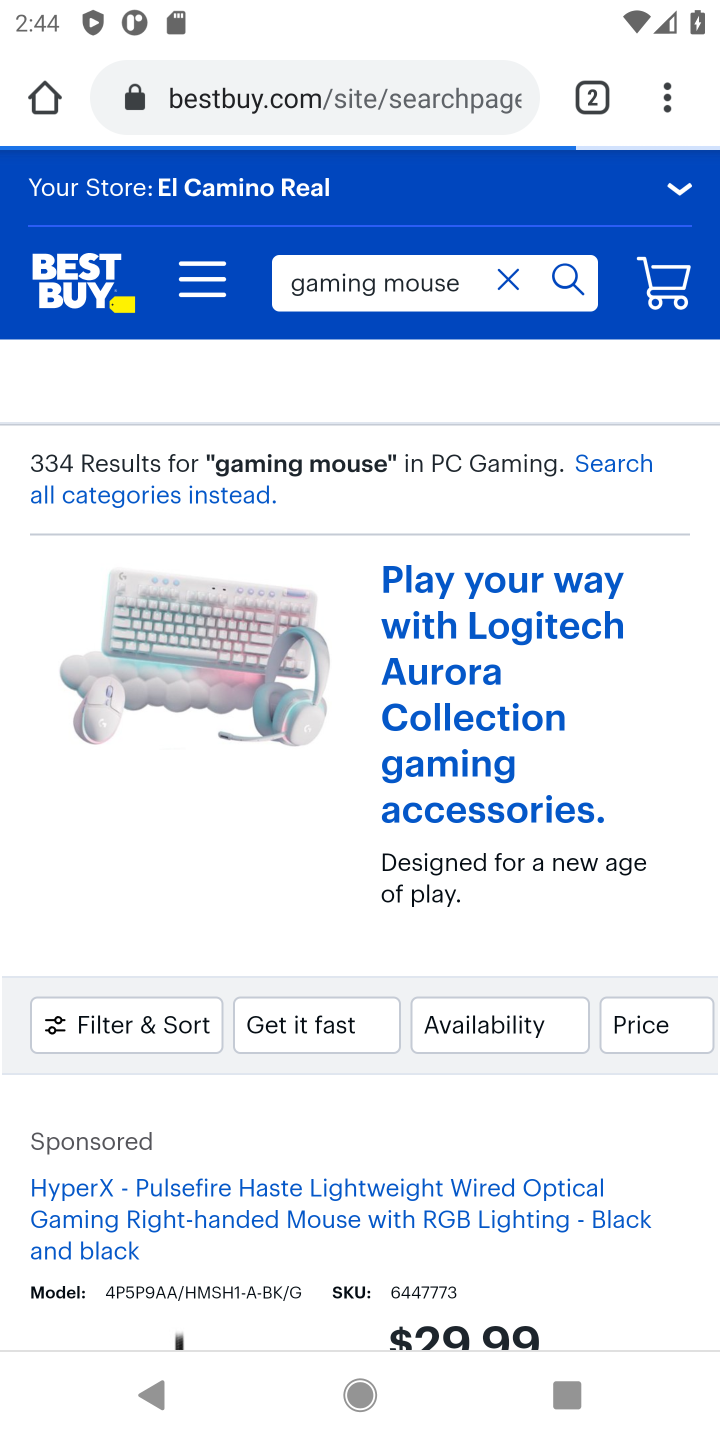
Step 28: click (324, 486)
Your task to perform on an android device: Search for the best gaming mouse on Best Buy. Image 29: 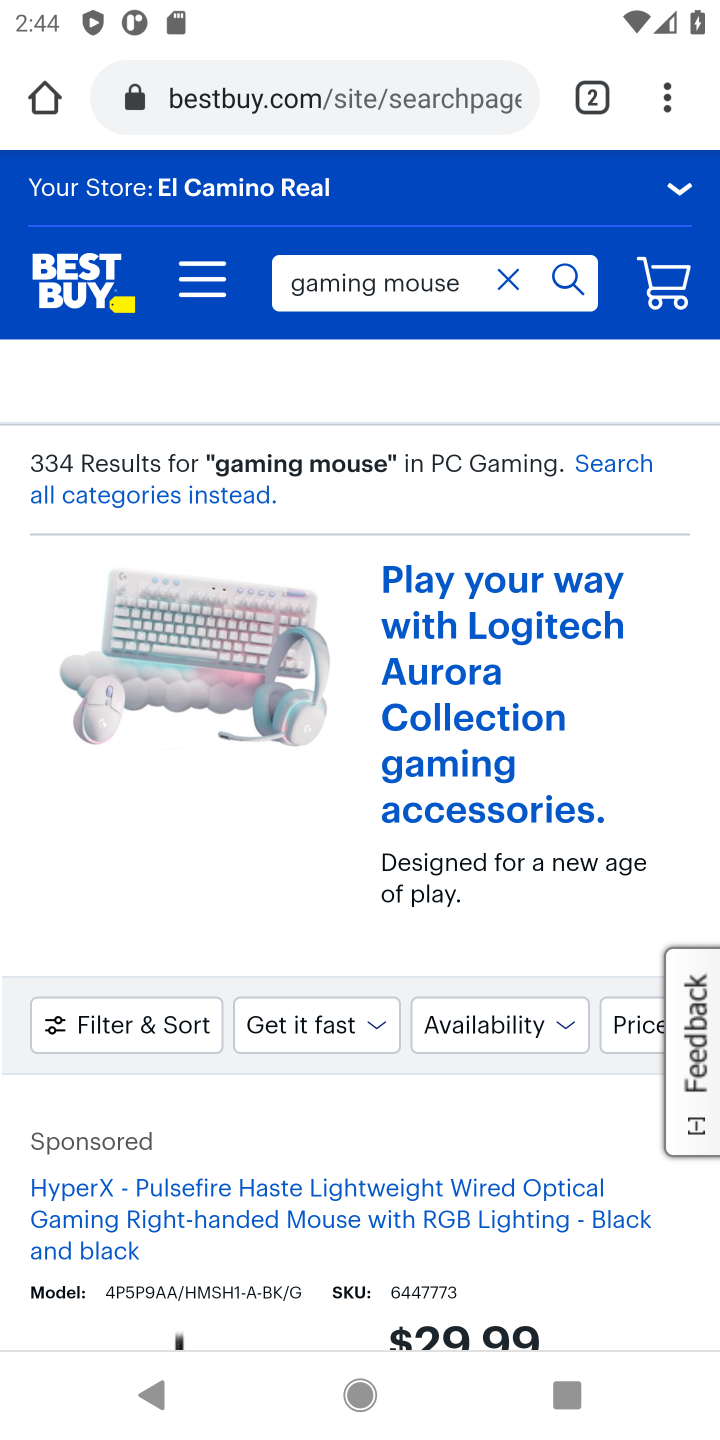
Step 29: task complete